Your task to perform on an android device: Open accessibility settings Image 0: 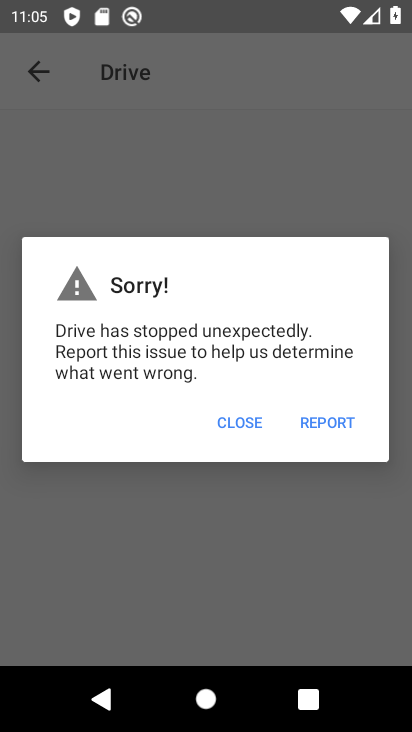
Step 0: press back button
Your task to perform on an android device: Open accessibility settings Image 1: 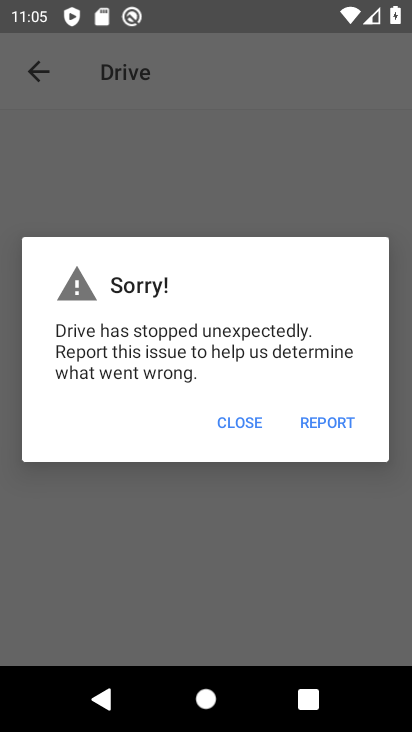
Step 1: press home button
Your task to perform on an android device: Open accessibility settings Image 2: 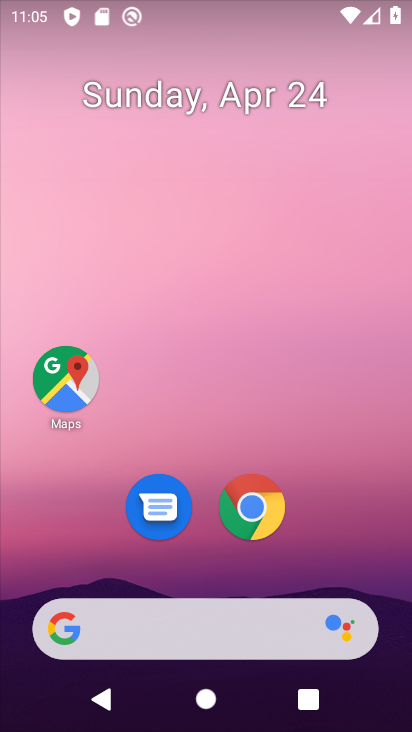
Step 2: drag from (291, 248) to (296, 12)
Your task to perform on an android device: Open accessibility settings Image 3: 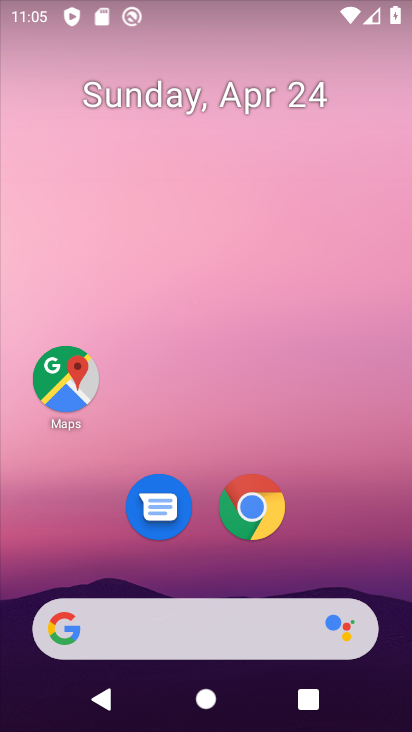
Step 3: drag from (10, 601) to (18, 38)
Your task to perform on an android device: Open accessibility settings Image 4: 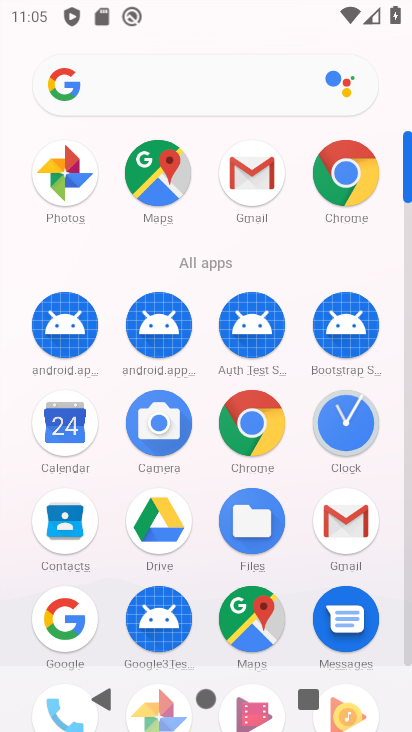
Step 4: drag from (15, 614) to (21, 245)
Your task to perform on an android device: Open accessibility settings Image 5: 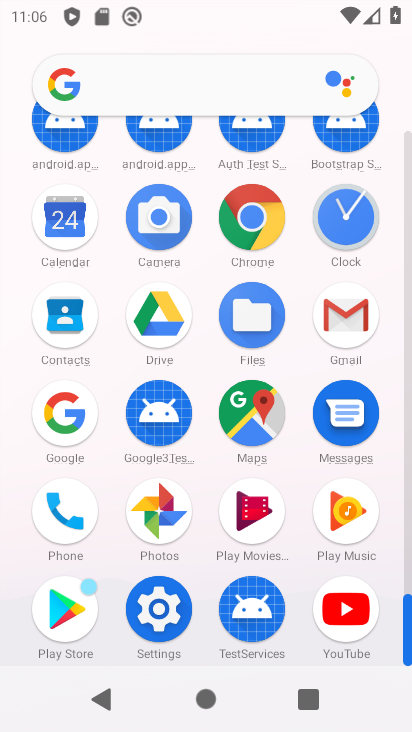
Step 5: click (159, 602)
Your task to perform on an android device: Open accessibility settings Image 6: 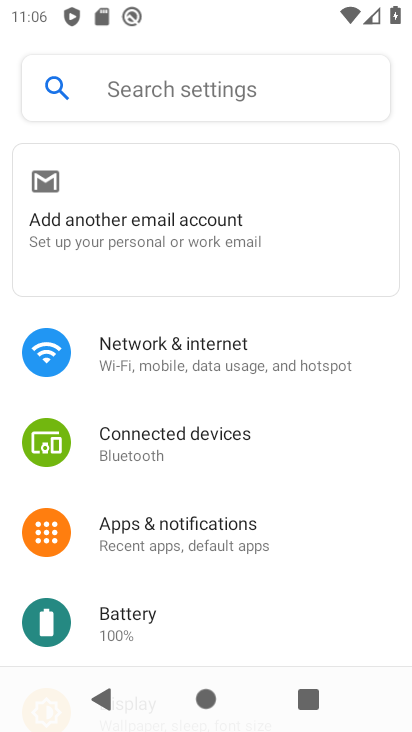
Step 6: drag from (254, 610) to (255, 116)
Your task to perform on an android device: Open accessibility settings Image 7: 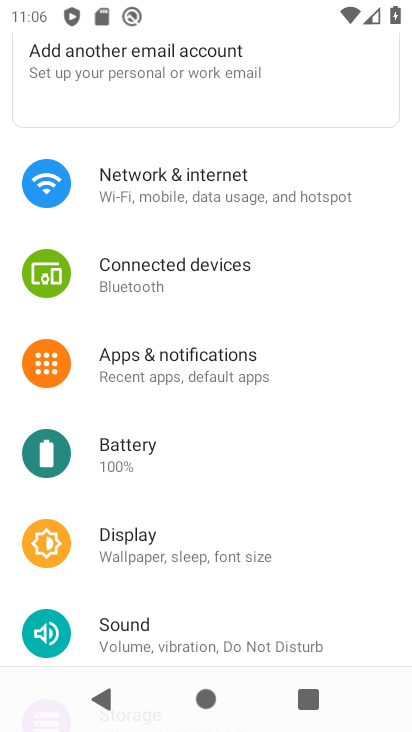
Step 7: drag from (239, 492) to (267, 152)
Your task to perform on an android device: Open accessibility settings Image 8: 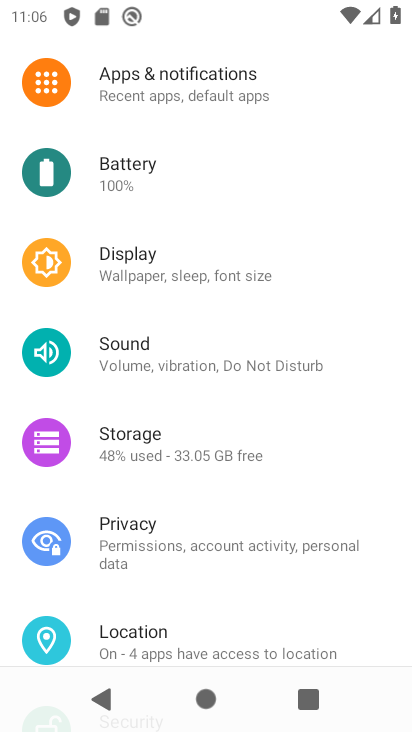
Step 8: drag from (259, 565) to (285, 273)
Your task to perform on an android device: Open accessibility settings Image 9: 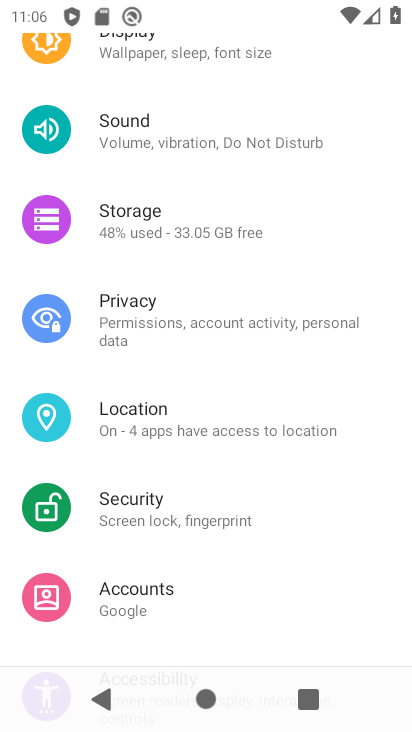
Step 9: drag from (287, 462) to (285, 26)
Your task to perform on an android device: Open accessibility settings Image 10: 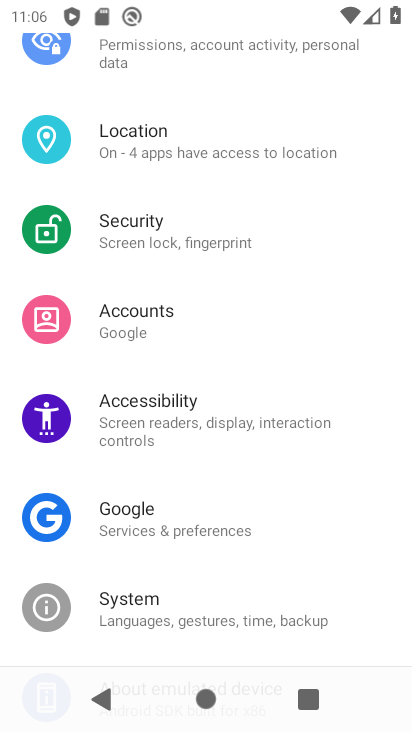
Step 10: drag from (217, 535) to (242, 162)
Your task to perform on an android device: Open accessibility settings Image 11: 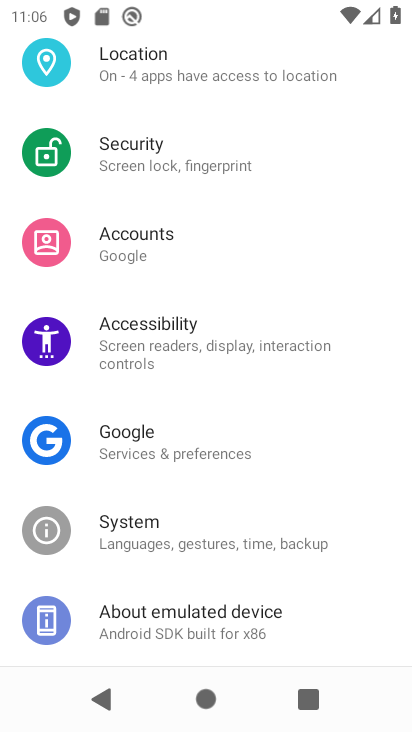
Step 11: click (190, 344)
Your task to perform on an android device: Open accessibility settings Image 12: 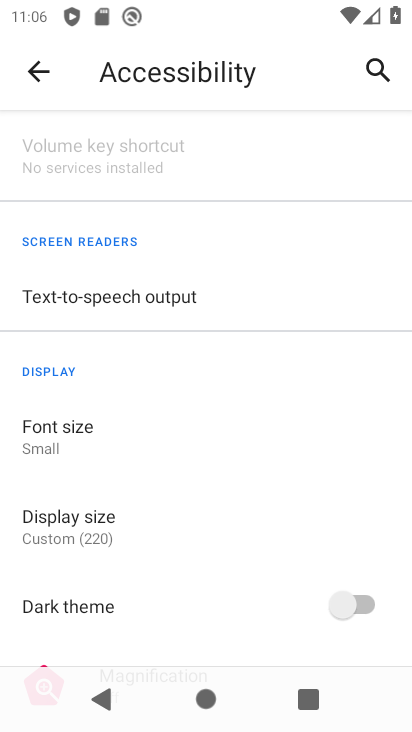
Step 12: task complete